Your task to perform on an android device: Open Amazon Image 0: 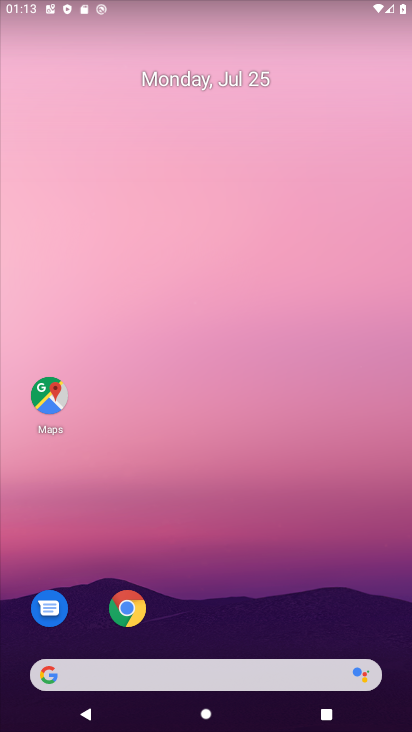
Step 0: drag from (220, 680) to (220, 0)
Your task to perform on an android device: Open Amazon Image 1: 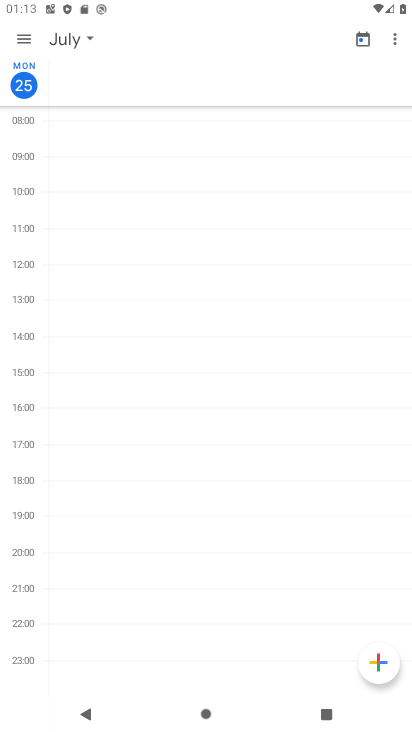
Step 1: press home button
Your task to perform on an android device: Open Amazon Image 2: 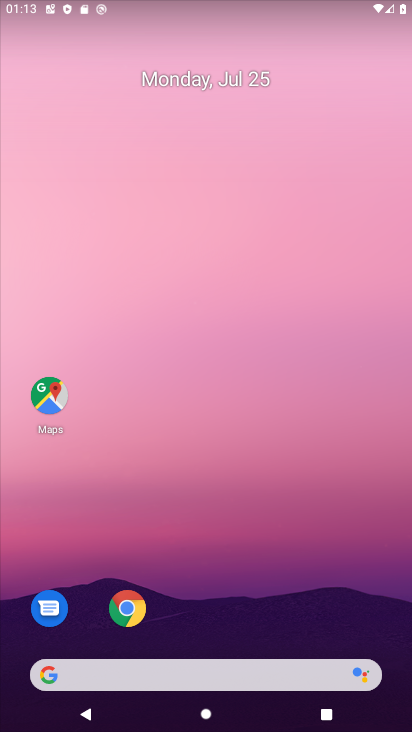
Step 2: click (136, 604)
Your task to perform on an android device: Open Amazon Image 3: 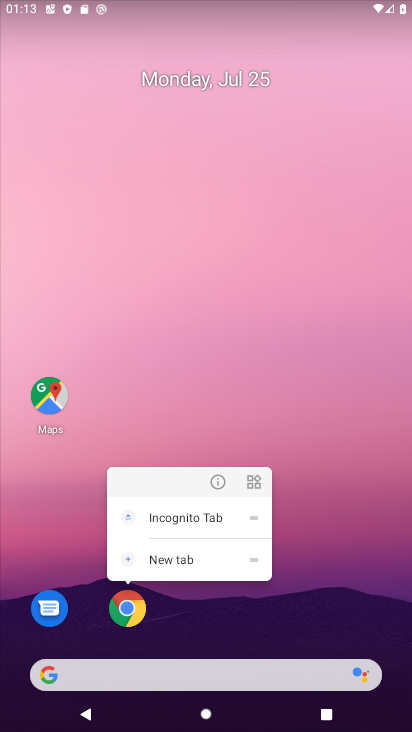
Step 3: click (139, 622)
Your task to perform on an android device: Open Amazon Image 4: 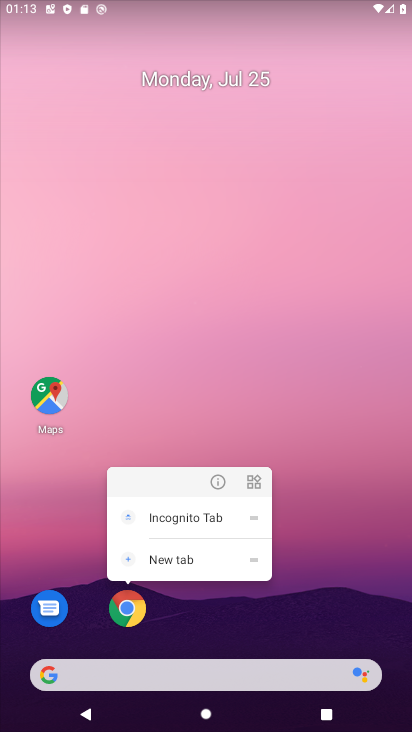
Step 4: click (131, 617)
Your task to perform on an android device: Open Amazon Image 5: 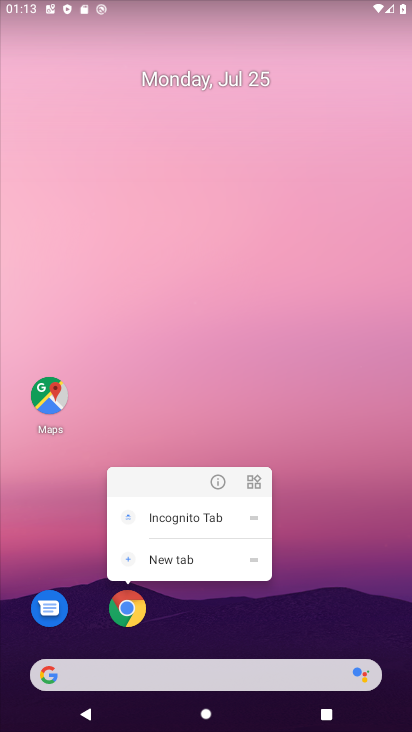
Step 5: click (130, 604)
Your task to perform on an android device: Open Amazon Image 6: 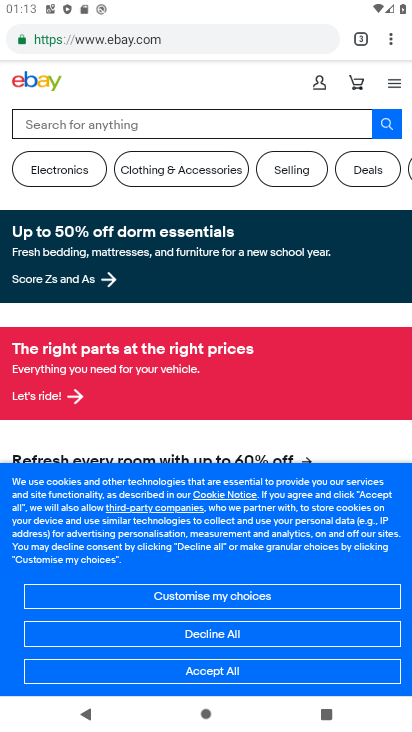
Step 6: click (359, 43)
Your task to perform on an android device: Open Amazon Image 7: 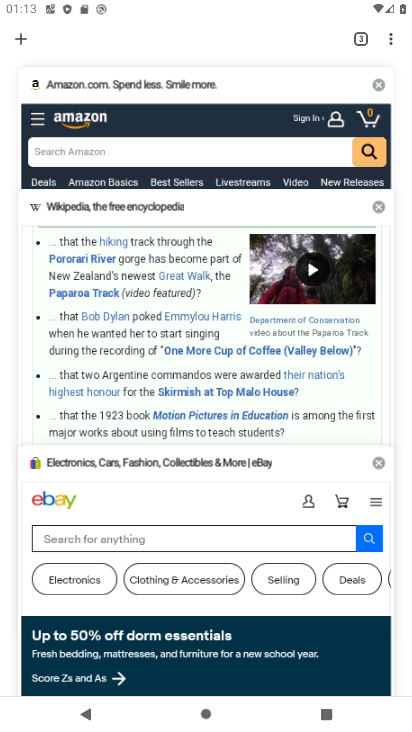
Step 7: click (26, 36)
Your task to perform on an android device: Open Amazon Image 8: 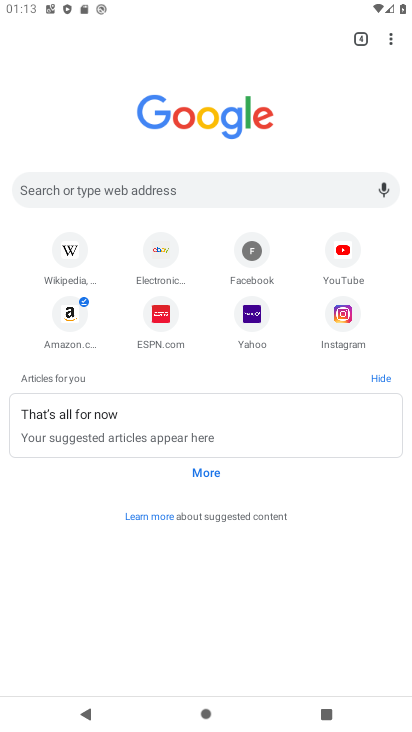
Step 8: click (43, 315)
Your task to perform on an android device: Open Amazon Image 9: 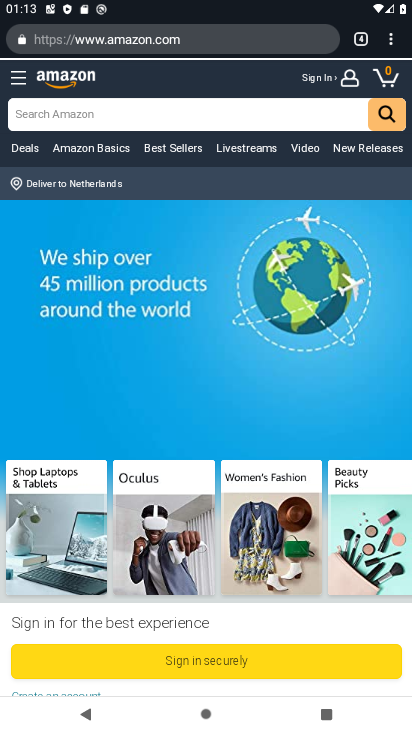
Step 9: task complete